Your task to perform on an android device: set an alarm Image 0: 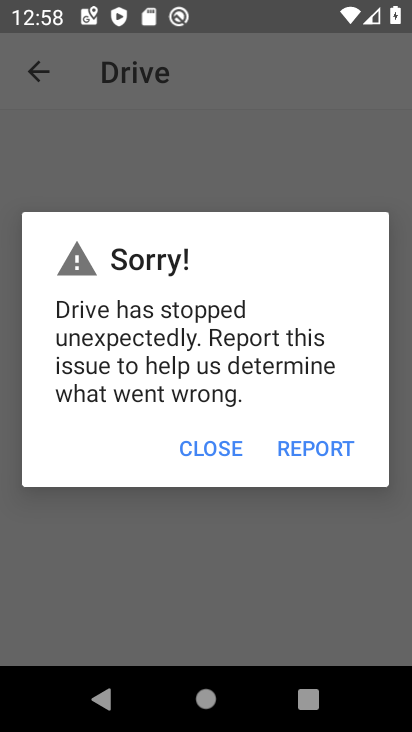
Step 0: press home button
Your task to perform on an android device: set an alarm Image 1: 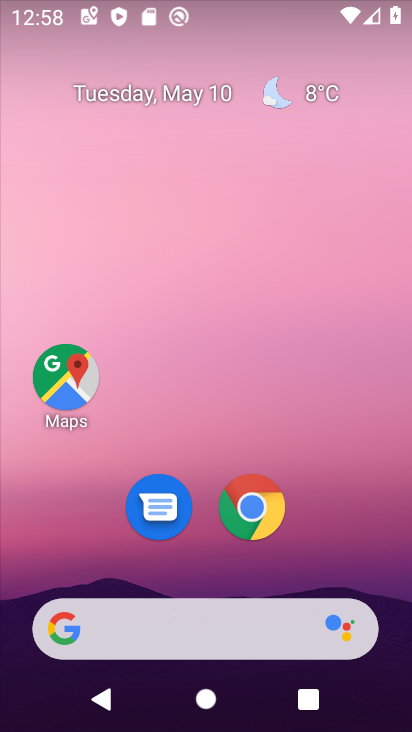
Step 1: drag from (239, 722) to (226, 181)
Your task to perform on an android device: set an alarm Image 2: 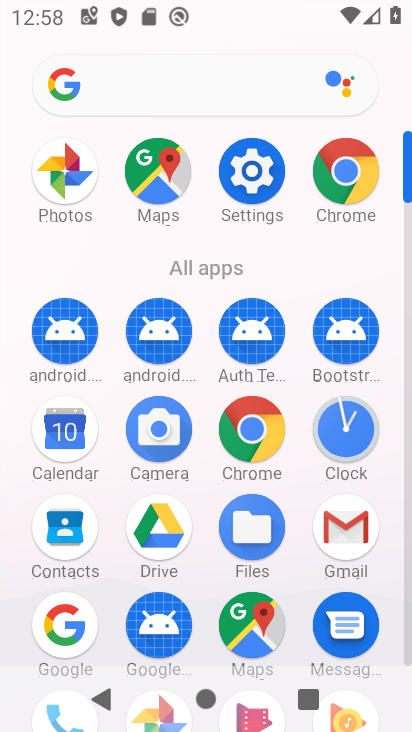
Step 2: click (341, 431)
Your task to perform on an android device: set an alarm Image 3: 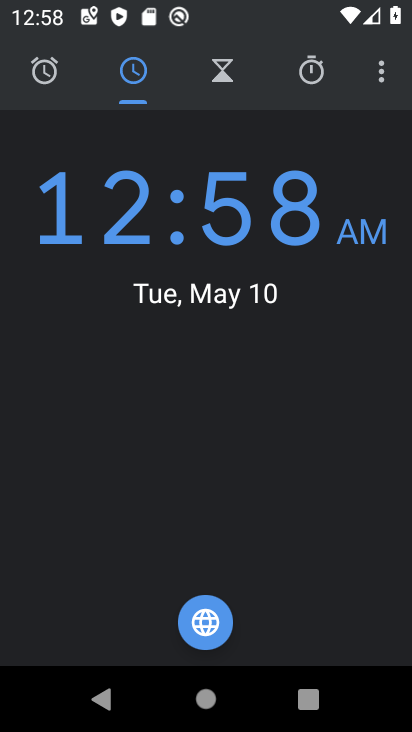
Step 3: click (39, 67)
Your task to perform on an android device: set an alarm Image 4: 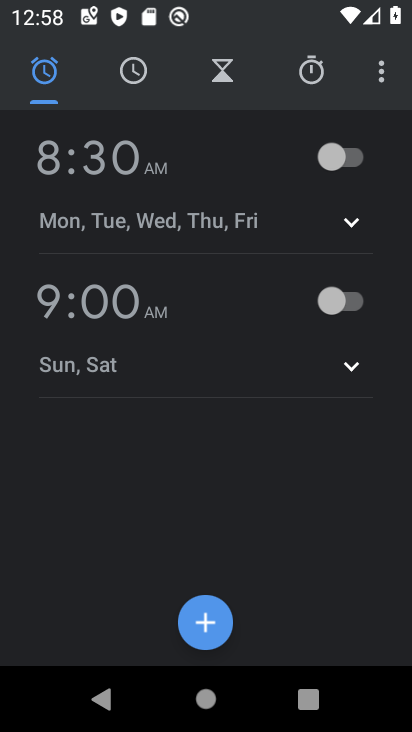
Step 4: click (207, 624)
Your task to perform on an android device: set an alarm Image 5: 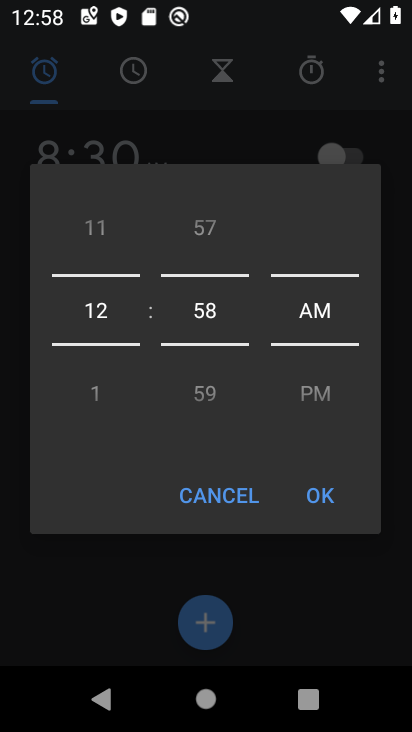
Step 5: drag from (95, 395) to (93, 161)
Your task to perform on an android device: set an alarm Image 6: 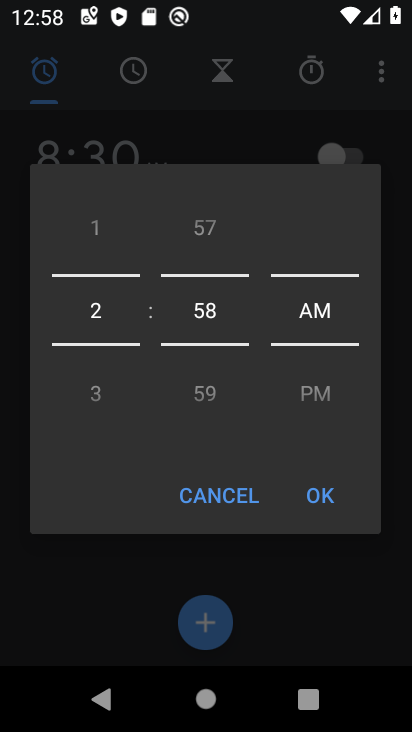
Step 6: drag from (208, 216) to (236, 497)
Your task to perform on an android device: set an alarm Image 7: 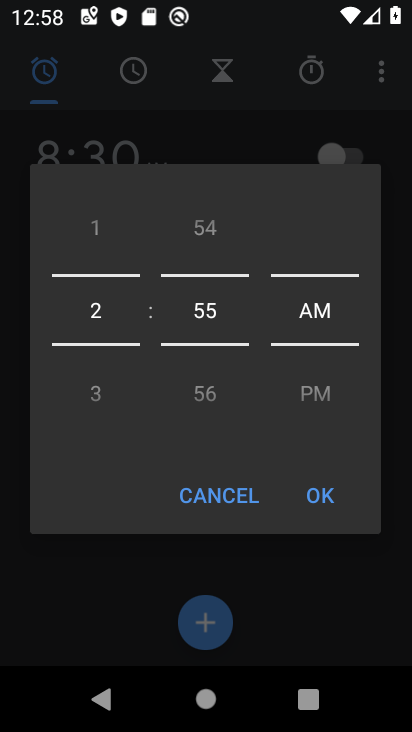
Step 7: drag from (323, 398) to (315, 277)
Your task to perform on an android device: set an alarm Image 8: 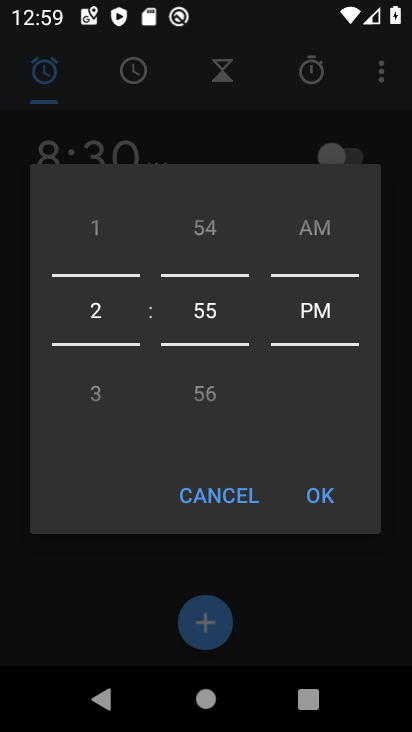
Step 8: click (331, 490)
Your task to perform on an android device: set an alarm Image 9: 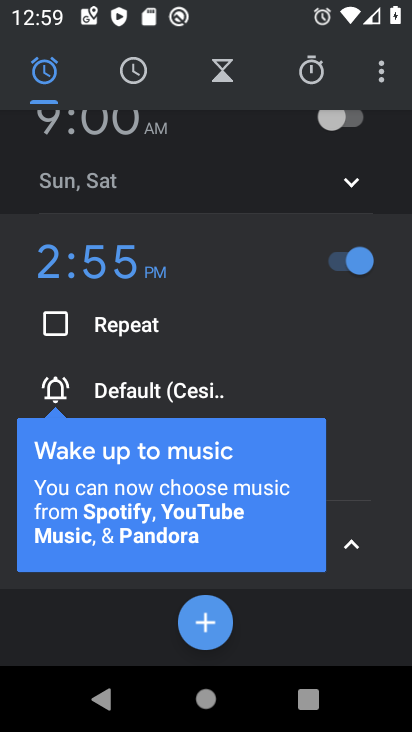
Step 9: task complete